Your task to perform on an android device: Show me productivity apps on the Play Store Image 0: 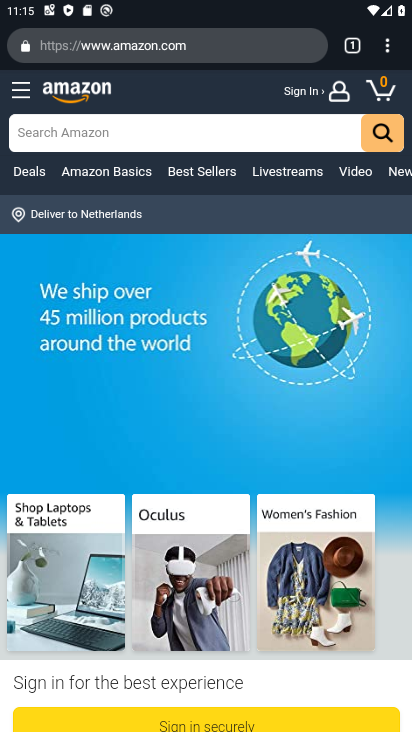
Step 0: press home button
Your task to perform on an android device: Show me productivity apps on the Play Store Image 1: 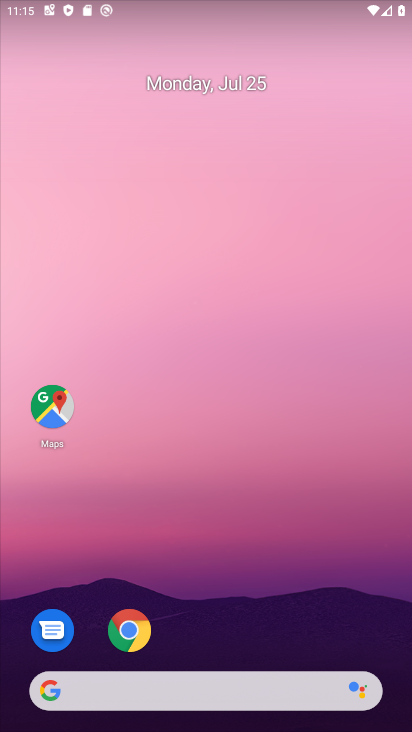
Step 1: drag from (346, 562) to (357, 111)
Your task to perform on an android device: Show me productivity apps on the Play Store Image 2: 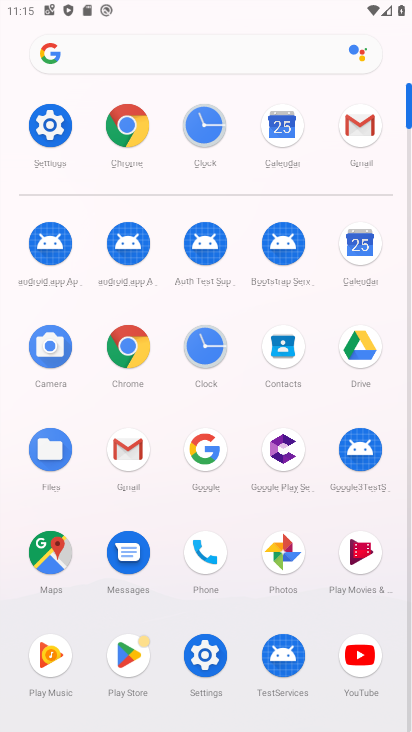
Step 2: click (126, 650)
Your task to perform on an android device: Show me productivity apps on the Play Store Image 3: 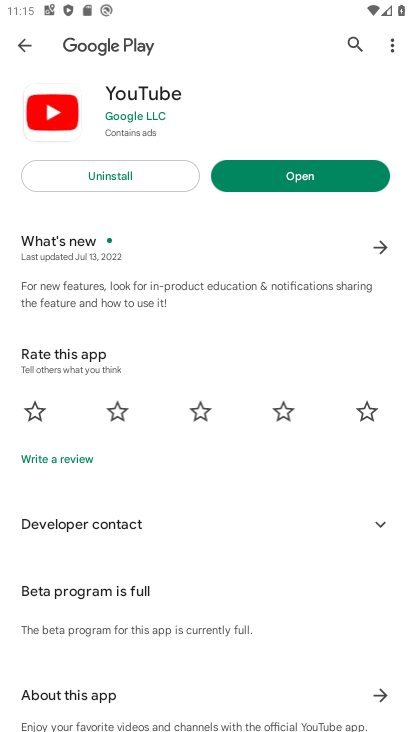
Step 3: press back button
Your task to perform on an android device: Show me productivity apps on the Play Store Image 4: 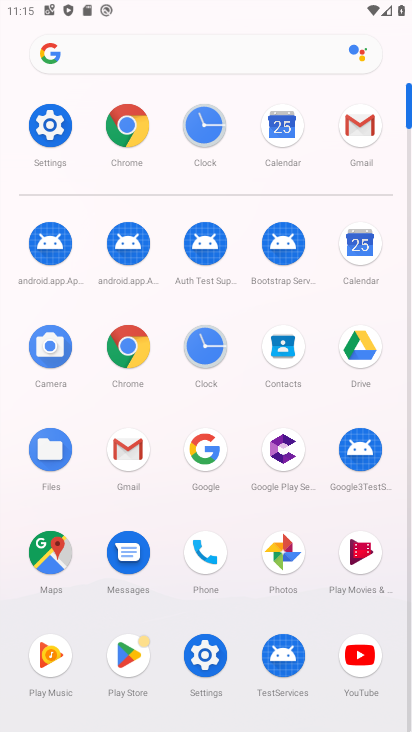
Step 4: click (133, 650)
Your task to perform on an android device: Show me productivity apps on the Play Store Image 5: 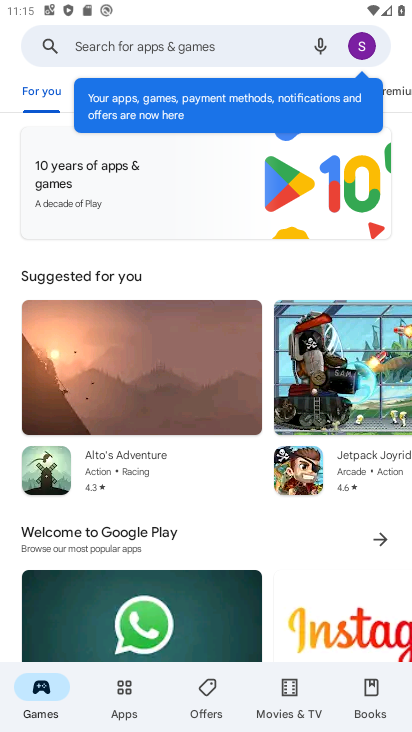
Step 5: click (127, 684)
Your task to perform on an android device: Show me productivity apps on the Play Store Image 6: 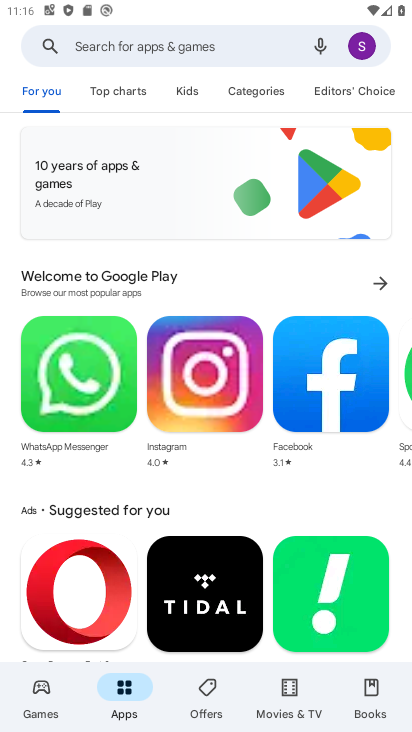
Step 6: task complete